Your task to perform on an android device: open app "Pluto TV - Live TV and Movies" (install if not already installed) and go to login screen Image 0: 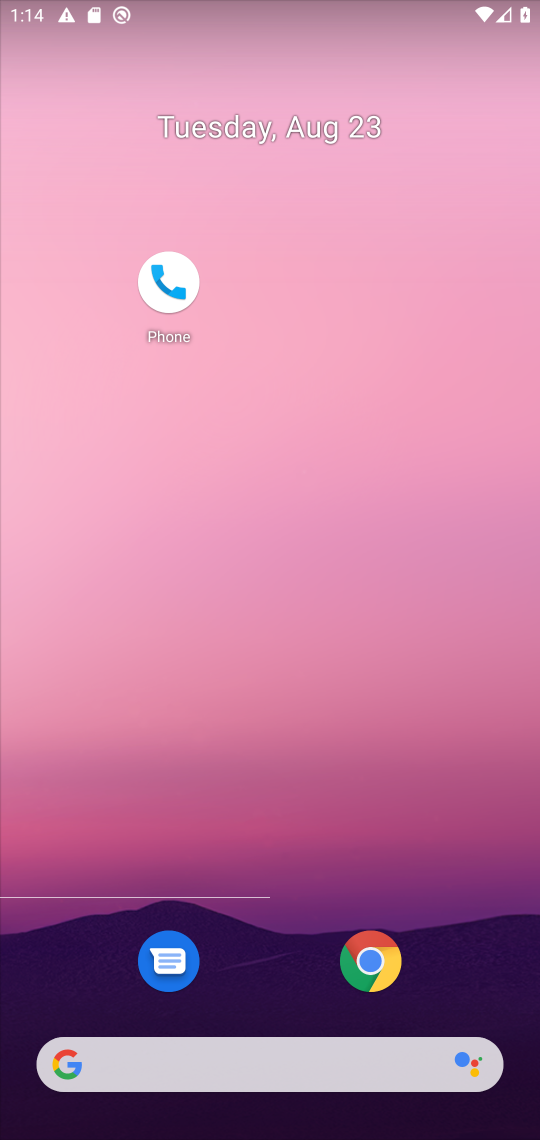
Step 0: task complete